Your task to perform on an android device: open app "Google Keep" Image 0: 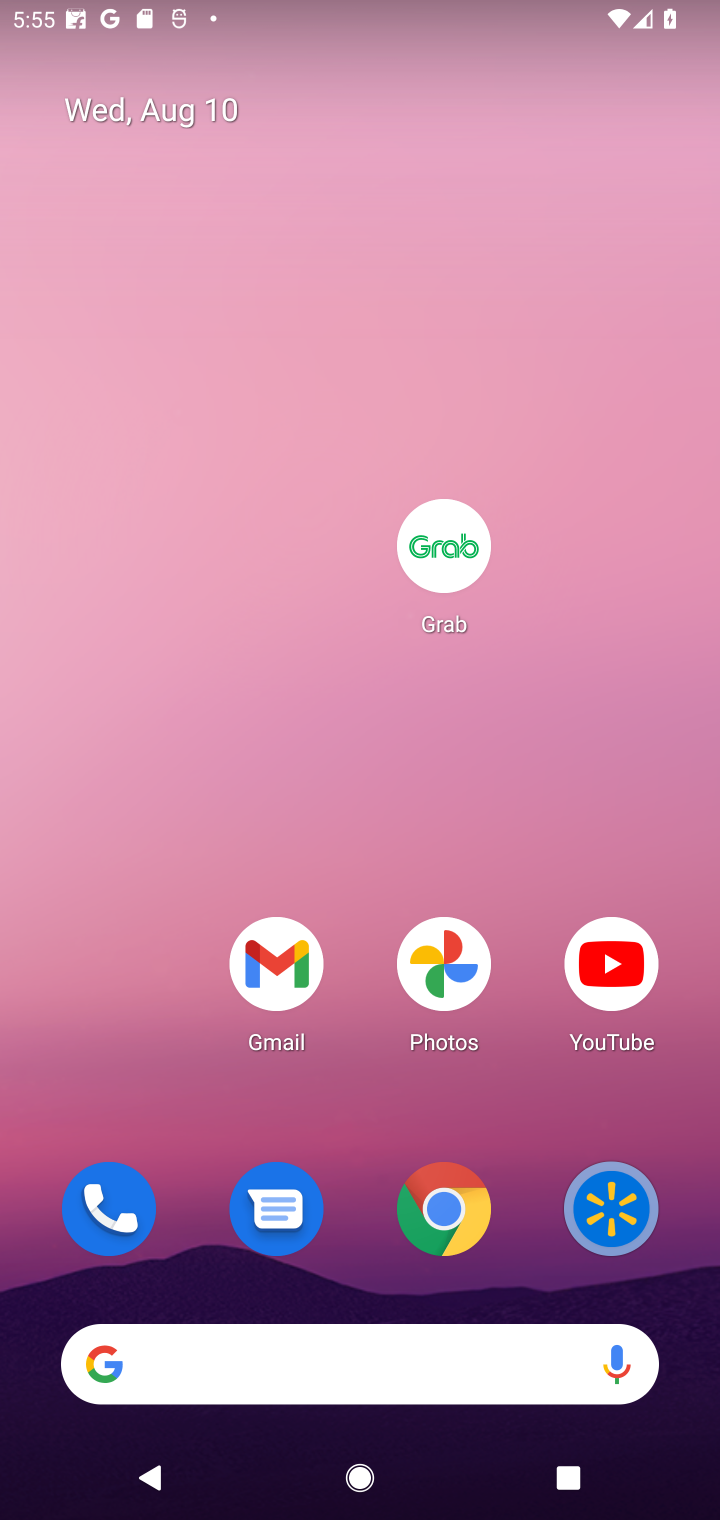
Step 0: click (448, 1252)
Your task to perform on an android device: open app "Google Keep" Image 1: 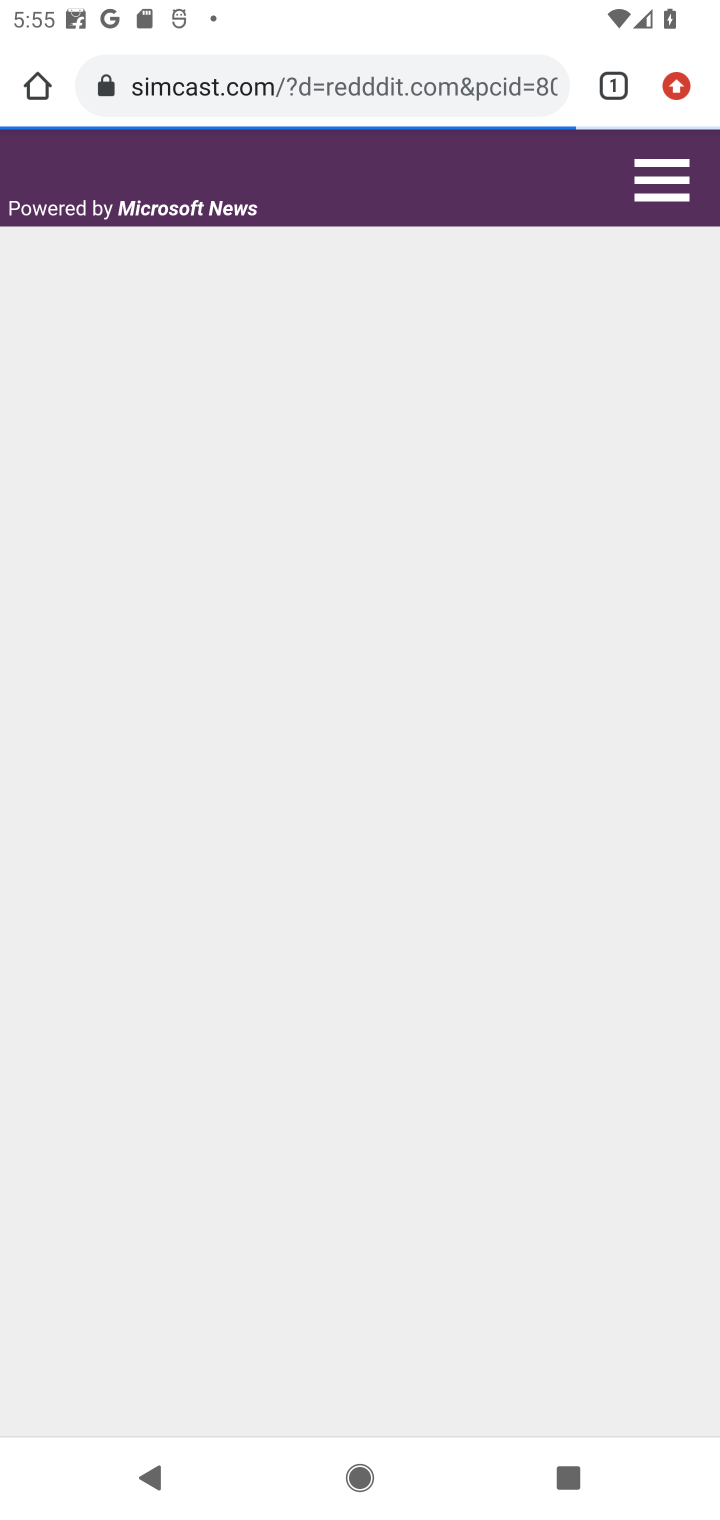
Step 1: press home button
Your task to perform on an android device: open app "Google Keep" Image 2: 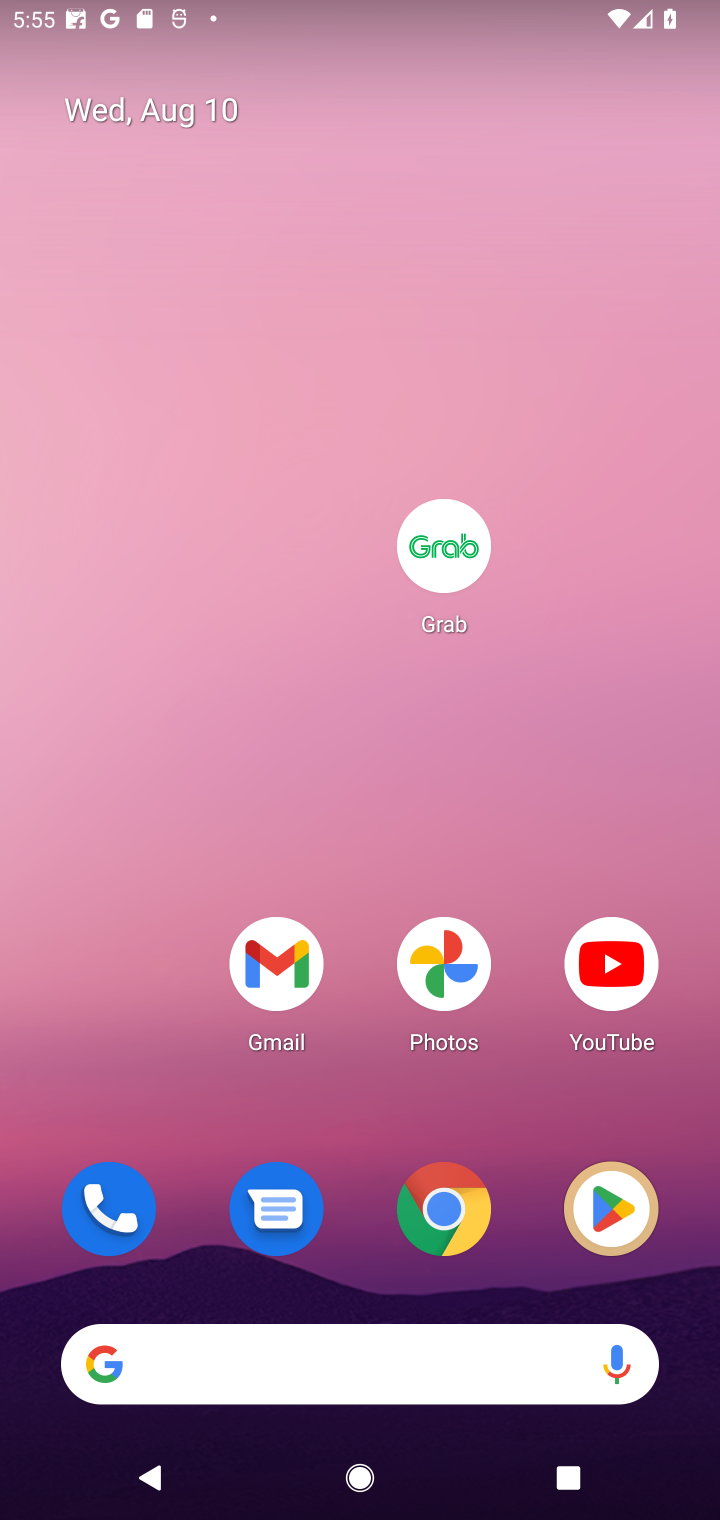
Step 2: click (585, 1225)
Your task to perform on an android device: open app "Google Keep" Image 3: 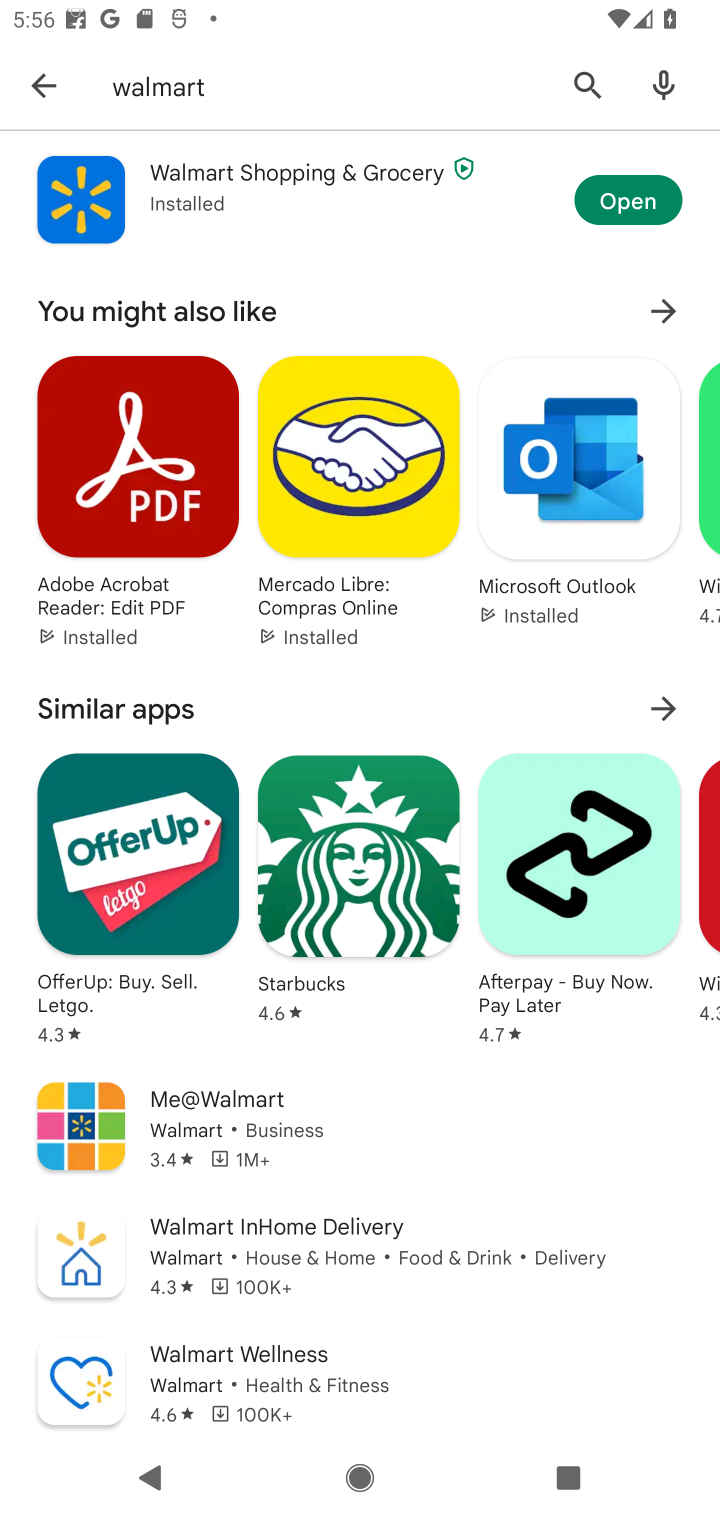
Step 3: click (550, 78)
Your task to perform on an android device: open app "Google Keep" Image 4: 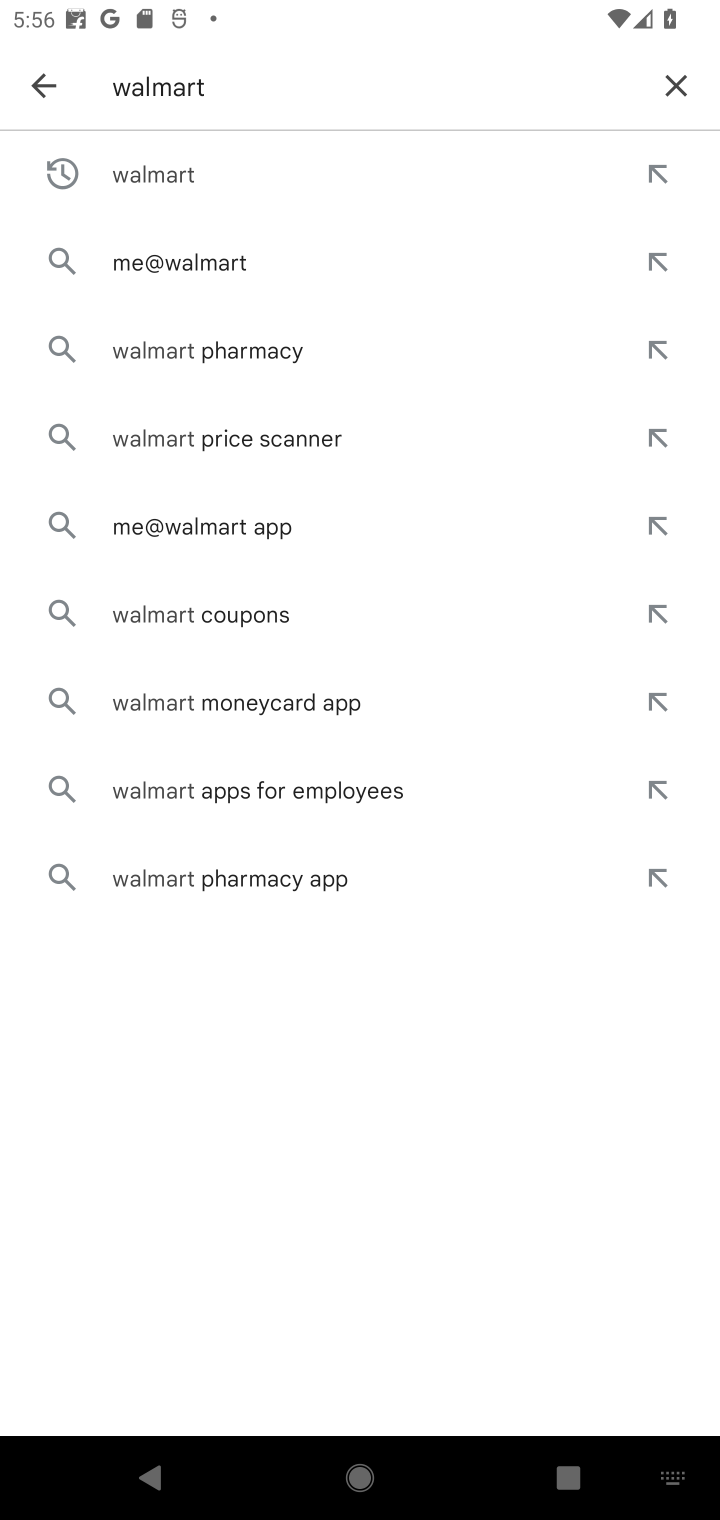
Step 4: click (668, 101)
Your task to perform on an android device: open app "Google Keep" Image 5: 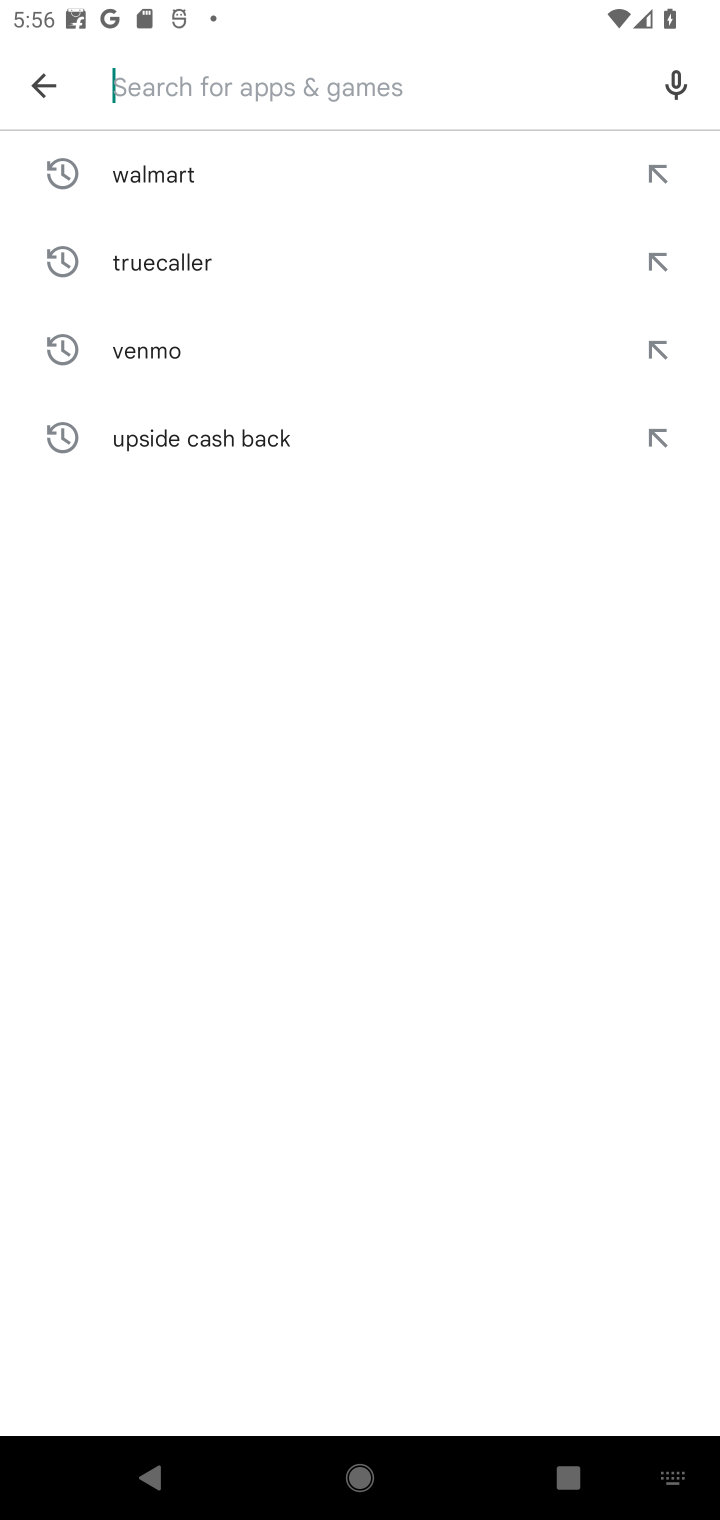
Step 5: type "keep google"
Your task to perform on an android device: open app "Google Keep" Image 6: 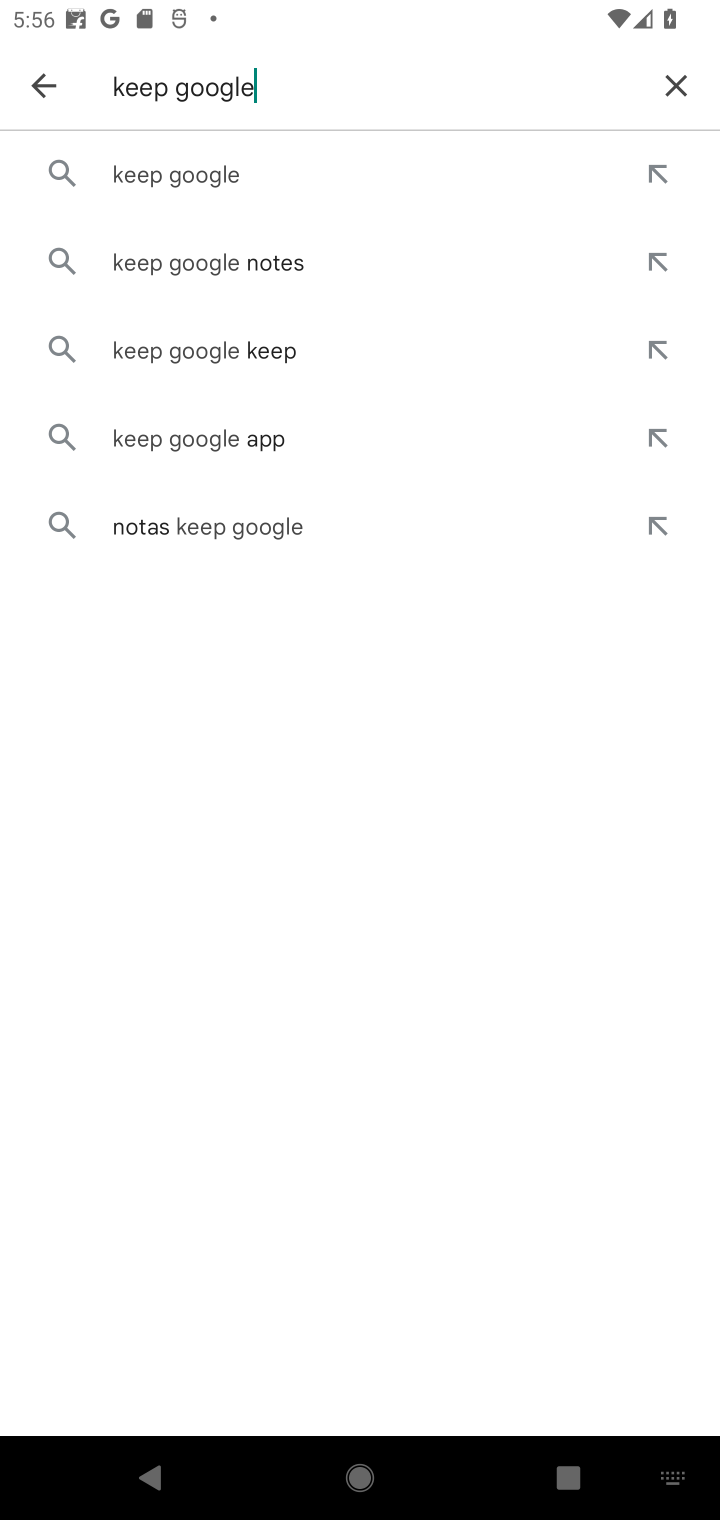
Step 6: click (215, 167)
Your task to perform on an android device: open app "Google Keep" Image 7: 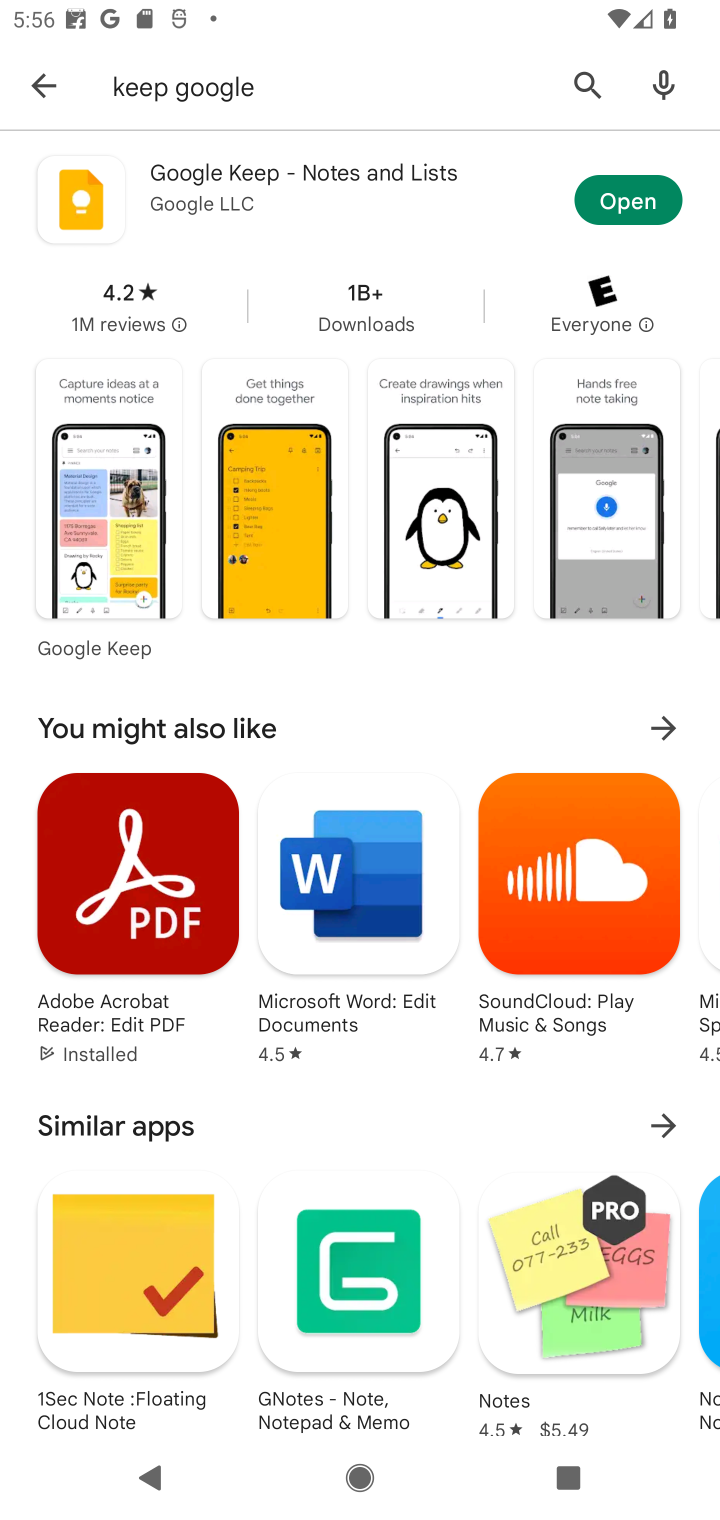
Step 7: click (648, 213)
Your task to perform on an android device: open app "Google Keep" Image 8: 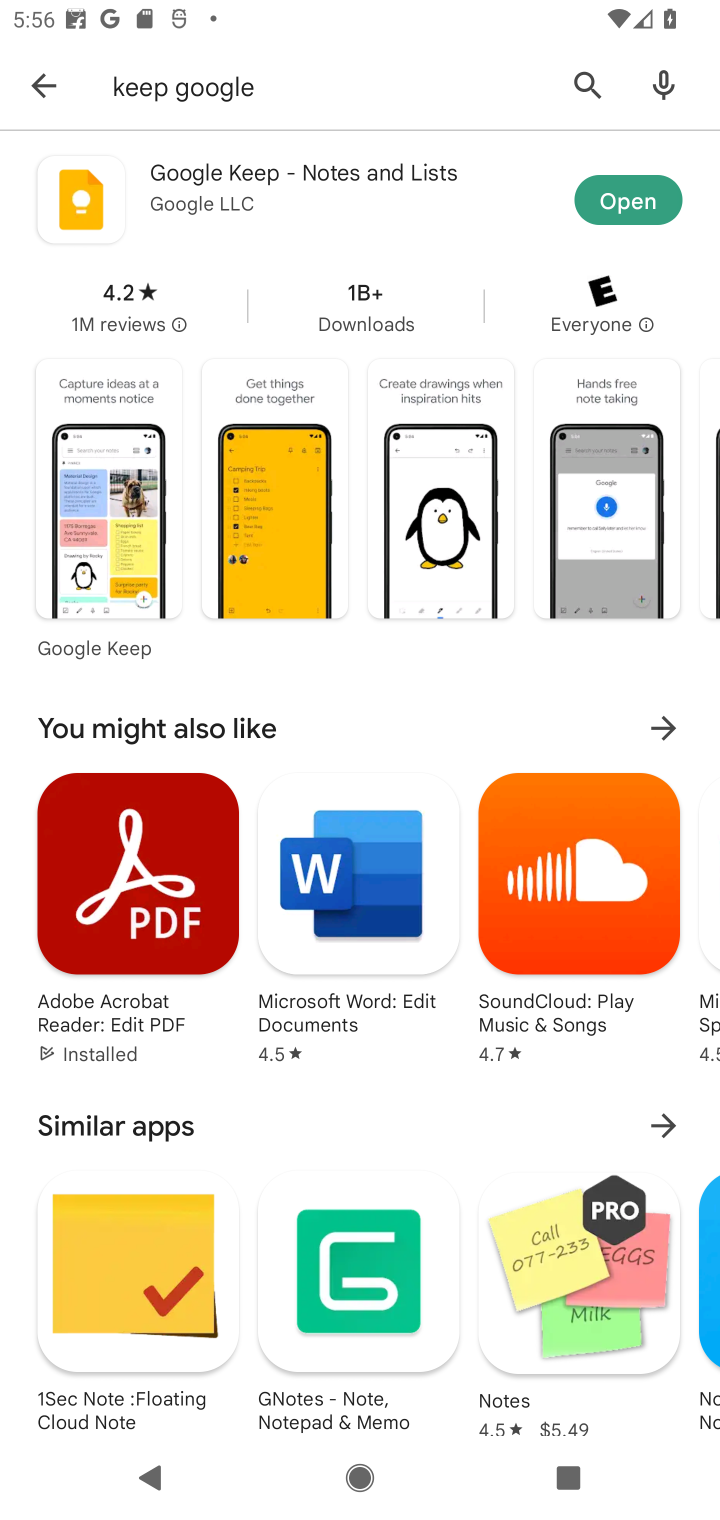
Step 8: task complete